Your task to perform on an android device: Clear the cart on ebay. Add amazon basics triple a to the cart on ebay Image 0: 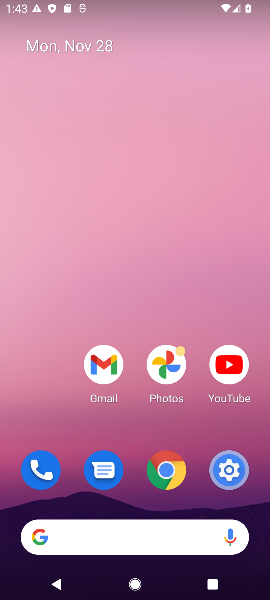
Step 0: click (93, 531)
Your task to perform on an android device: Clear the cart on ebay. Add amazon basics triple a to the cart on ebay Image 1: 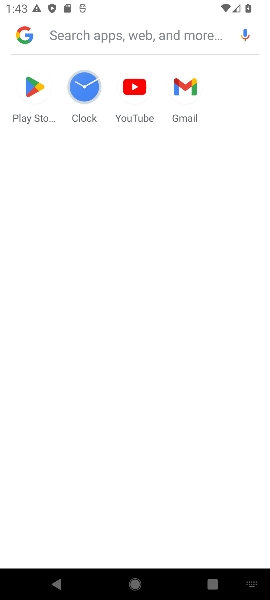
Step 1: type "amazon"
Your task to perform on an android device: Clear the cart on ebay. Add amazon basics triple a to the cart on ebay Image 2: 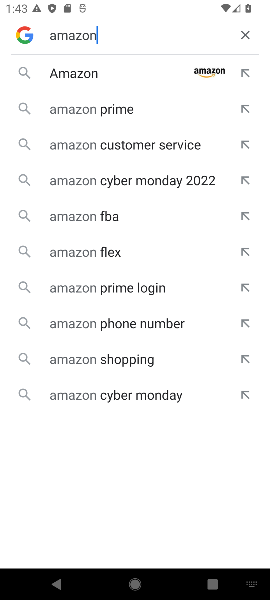
Step 2: click (87, 83)
Your task to perform on an android device: Clear the cart on ebay. Add amazon basics triple a to the cart on ebay Image 3: 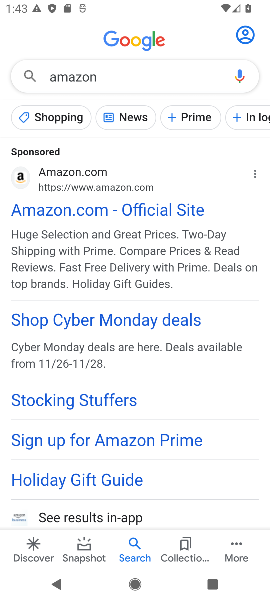
Step 3: click (86, 201)
Your task to perform on an android device: Clear the cart on ebay. Add amazon basics triple a to the cart on ebay Image 4: 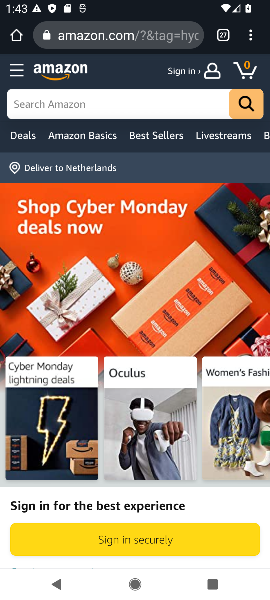
Step 4: click (121, 103)
Your task to perform on an android device: Clear the cart on ebay. Add amazon basics triple a to the cart on ebay Image 5: 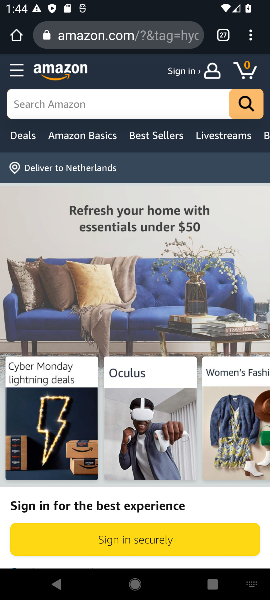
Step 5: task complete